Your task to perform on an android device: delete location history Image 0: 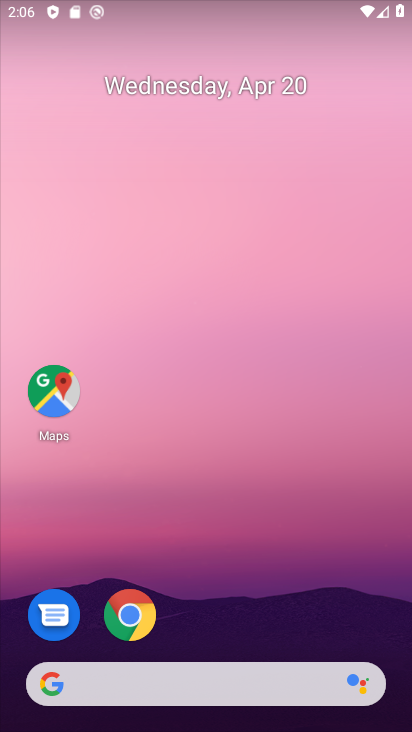
Step 0: drag from (269, 590) to (249, 22)
Your task to perform on an android device: delete location history Image 1: 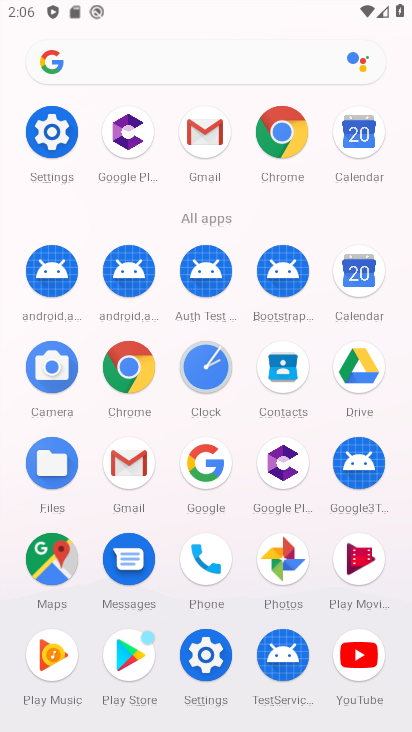
Step 1: click (59, 545)
Your task to perform on an android device: delete location history Image 2: 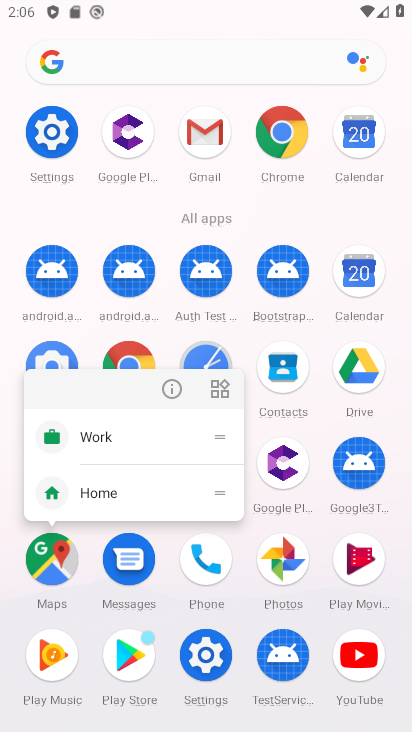
Step 2: click (33, 538)
Your task to perform on an android device: delete location history Image 3: 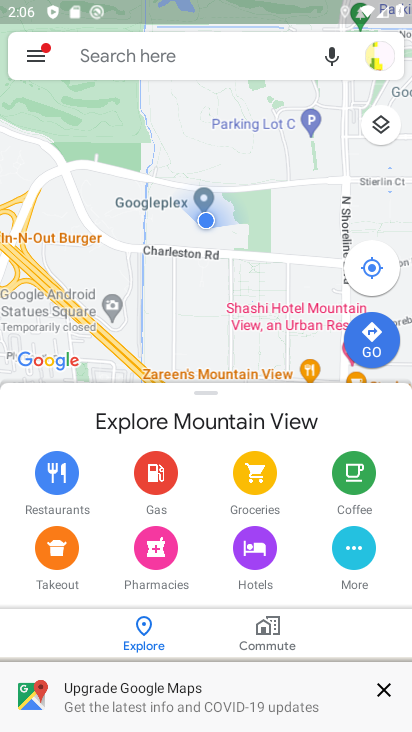
Step 3: click (28, 53)
Your task to perform on an android device: delete location history Image 4: 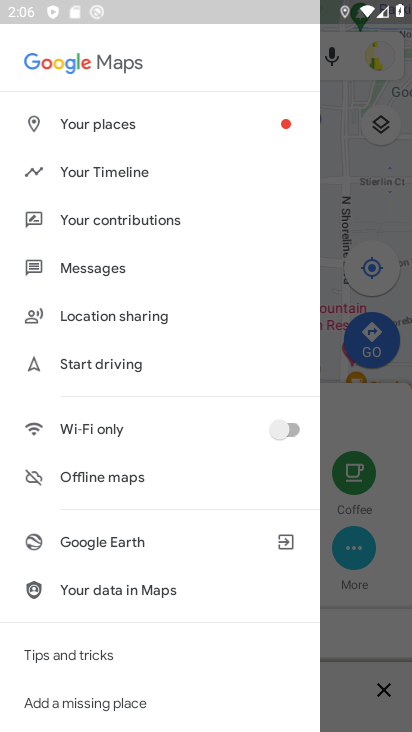
Step 4: click (87, 166)
Your task to perform on an android device: delete location history Image 5: 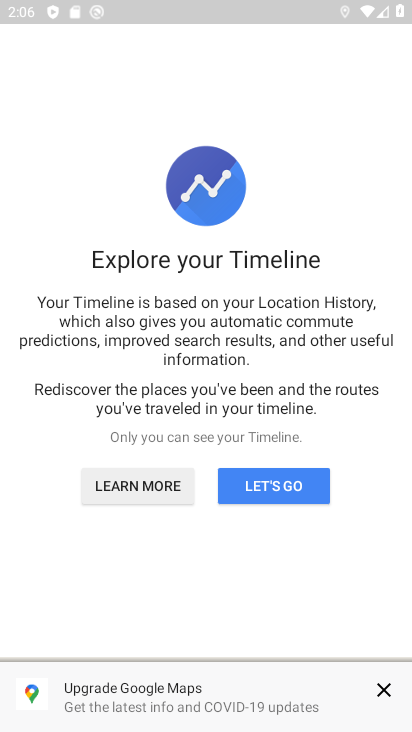
Step 5: click (274, 484)
Your task to perform on an android device: delete location history Image 6: 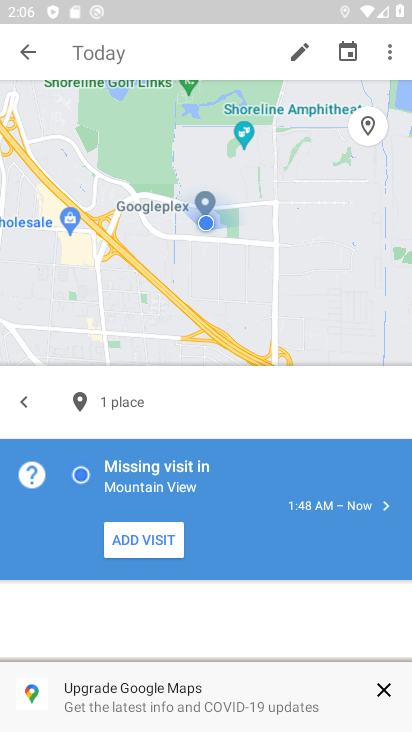
Step 6: click (388, 51)
Your task to perform on an android device: delete location history Image 7: 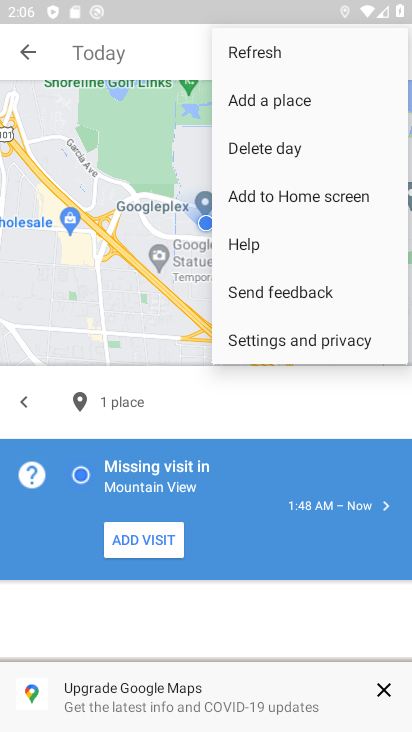
Step 7: click (327, 333)
Your task to perform on an android device: delete location history Image 8: 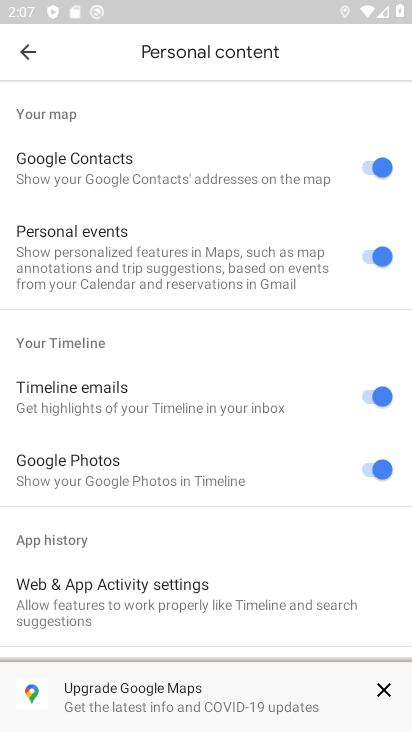
Step 8: drag from (194, 577) to (122, 112)
Your task to perform on an android device: delete location history Image 9: 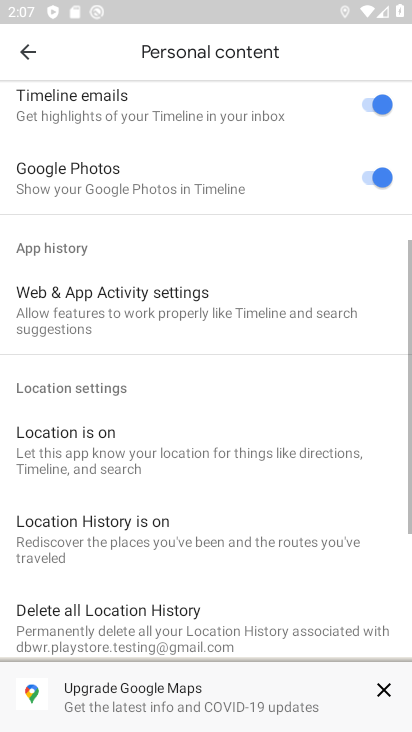
Step 9: drag from (254, 602) to (210, 293)
Your task to perform on an android device: delete location history Image 10: 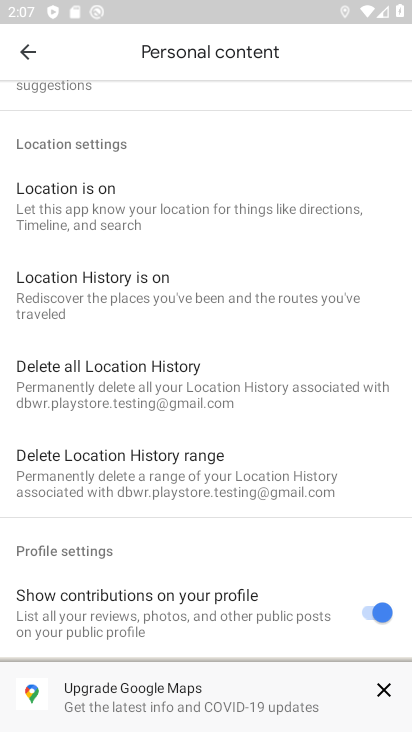
Step 10: click (118, 397)
Your task to perform on an android device: delete location history Image 11: 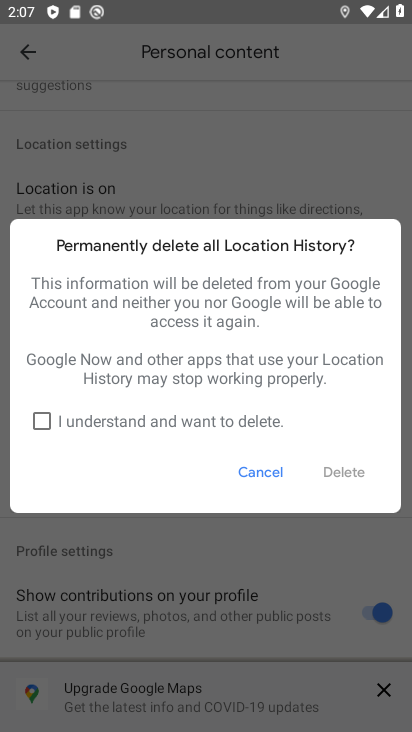
Step 11: click (198, 420)
Your task to perform on an android device: delete location history Image 12: 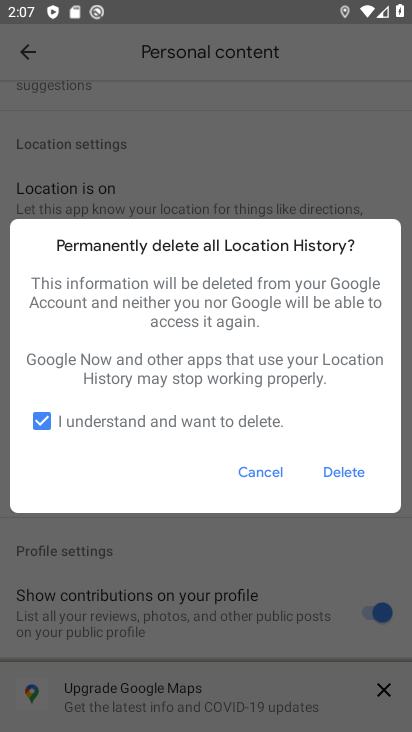
Step 12: click (343, 479)
Your task to perform on an android device: delete location history Image 13: 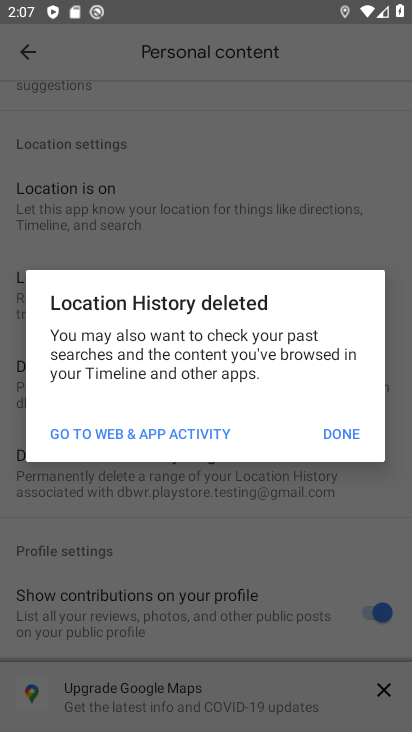
Step 13: click (333, 439)
Your task to perform on an android device: delete location history Image 14: 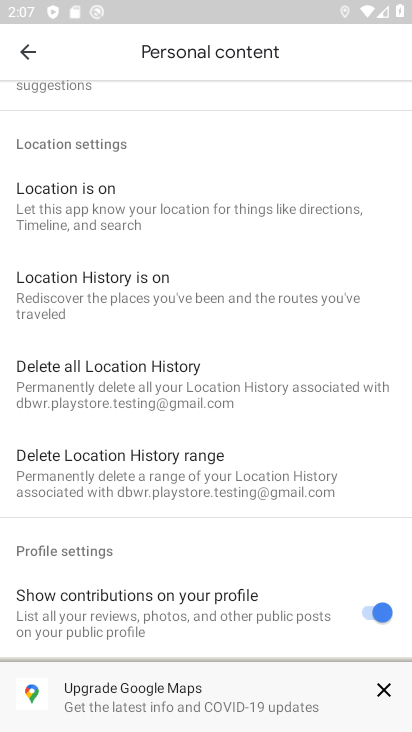
Step 14: task complete